Your task to perform on an android device: Show me recent news Image 0: 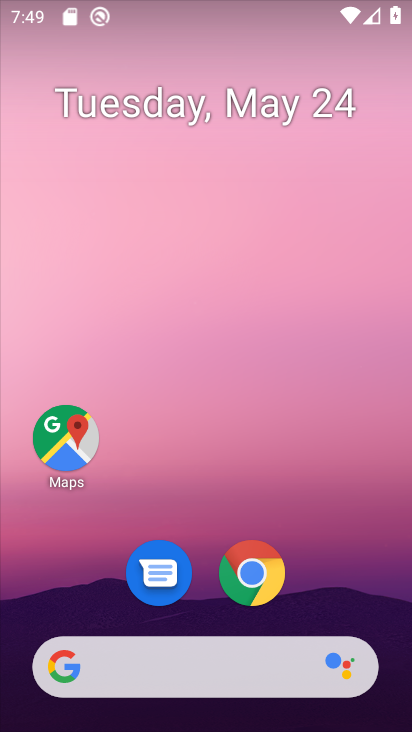
Step 0: drag from (349, 551) to (362, 4)
Your task to perform on an android device: Show me recent news Image 1: 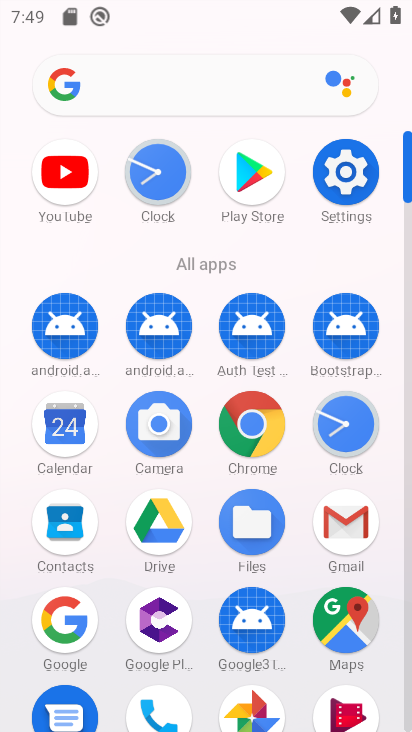
Step 1: click (250, 413)
Your task to perform on an android device: Show me recent news Image 2: 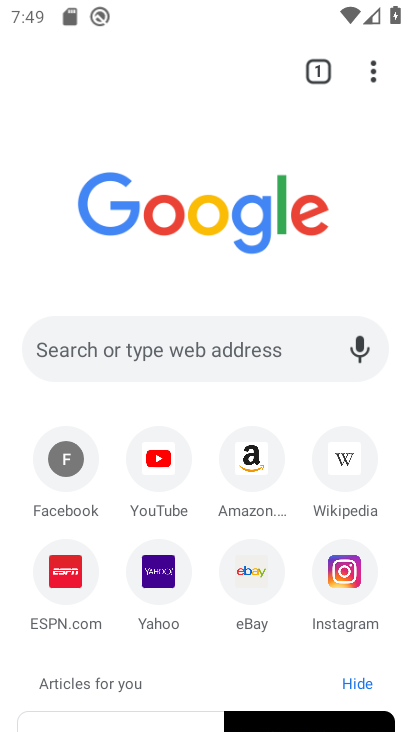
Step 2: task complete